Your task to perform on an android device: open app "Spotify" (install if not already installed) Image 0: 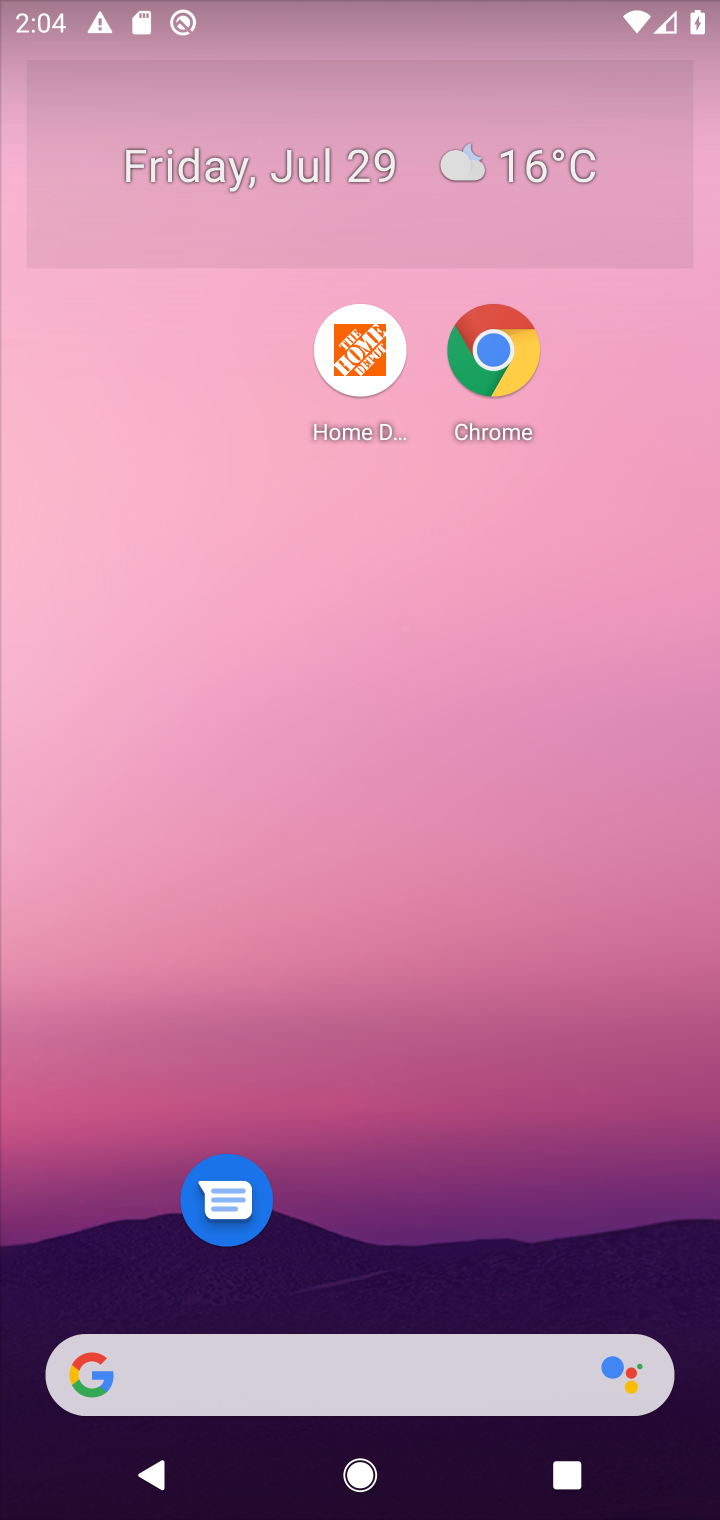
Step 0: drag from (543, 1209) to (521, 189)
Your task to perform on an android device: open app "Spotify" (install if not already installed) Image 1: 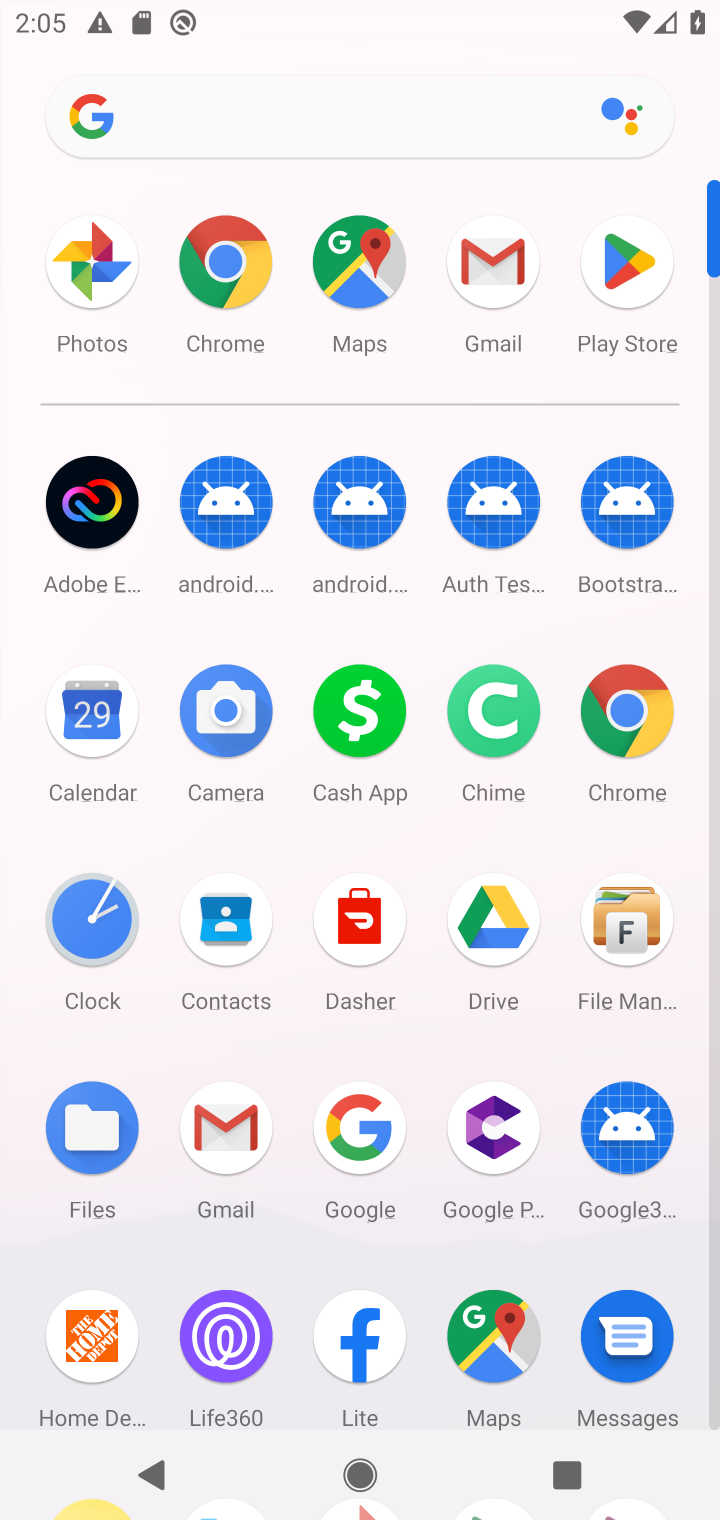
Step 1: click (604, 270)
Your task to perform on an android device: open app "Spotify" (install if not already installed) Image 2: 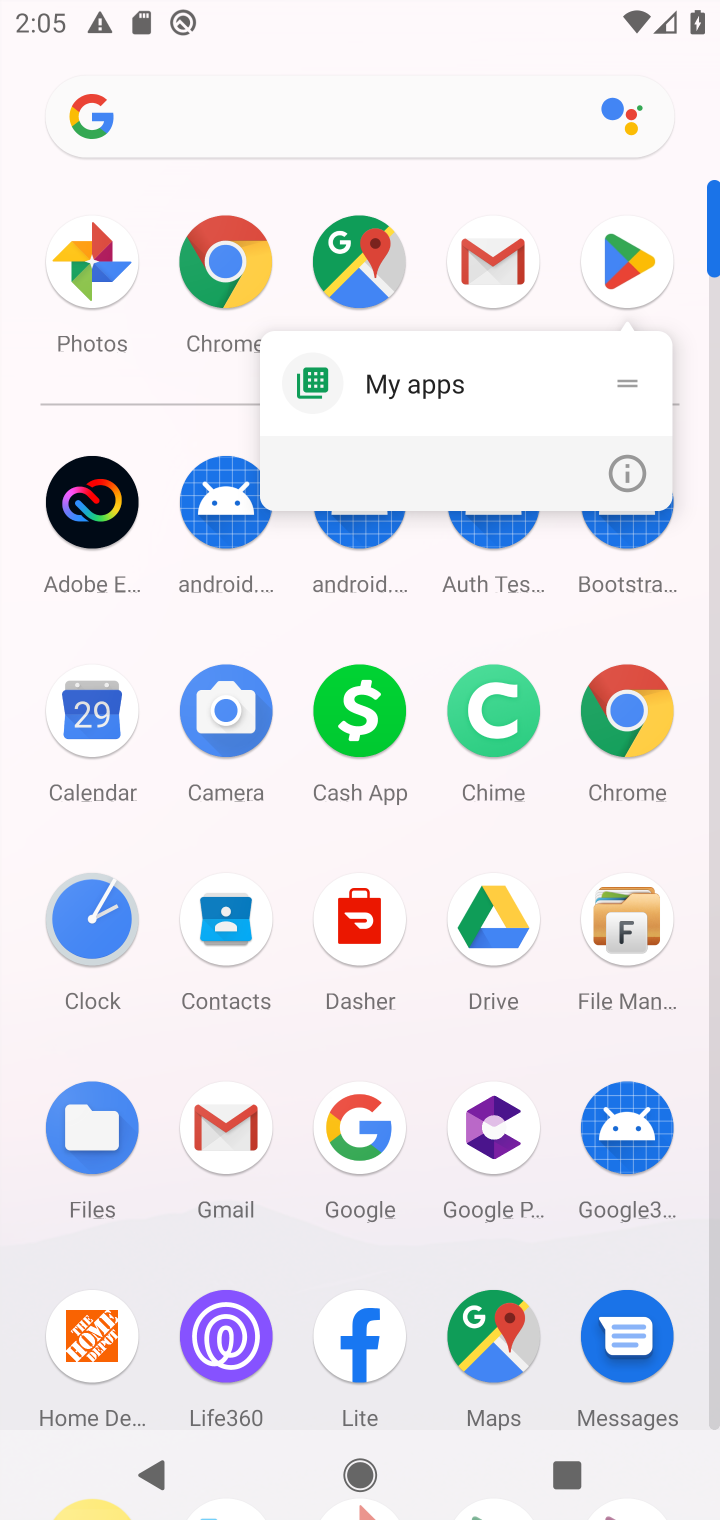
Step 2: click (429, 1249)
Your task to perform on an android device: open app "Spotify" (install if not already installed) Image 3: 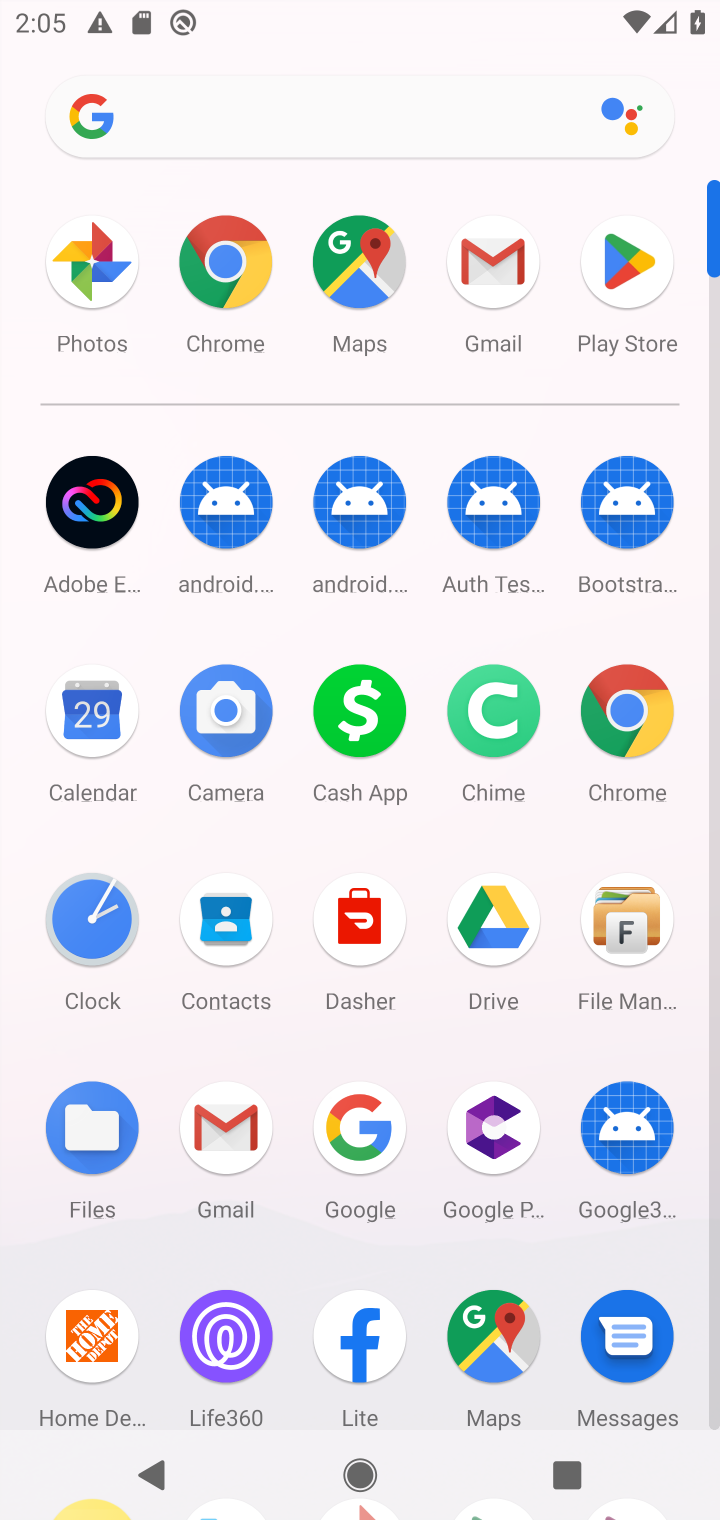
Step 3: drag from (429, 1249) to (473, 585)
Your task to perform on an android device: open app "Spotify" (install if not already installed) Image 4: 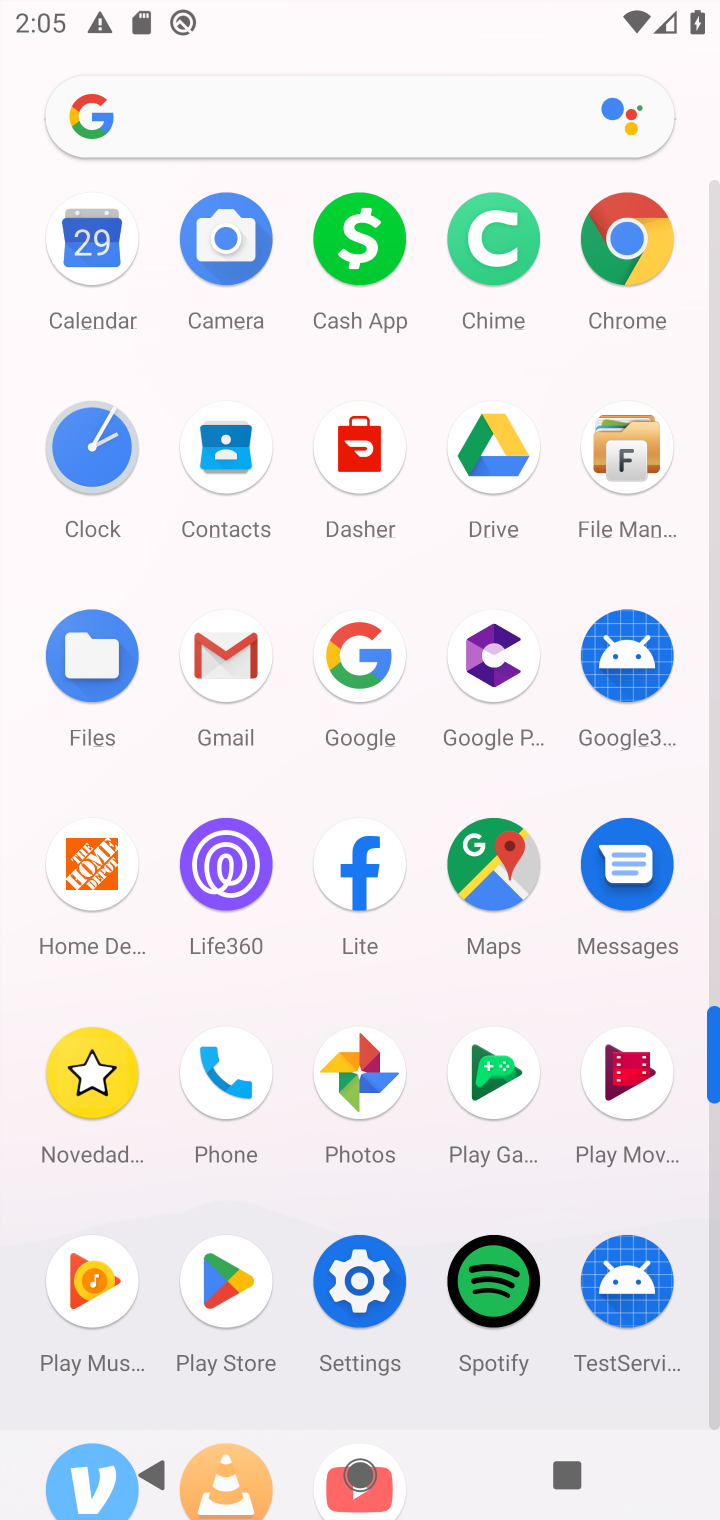
Step 4: click (217, 1293)
Your task to perform on an android device: open app "Spotify" (install if not already installed) Image 5: 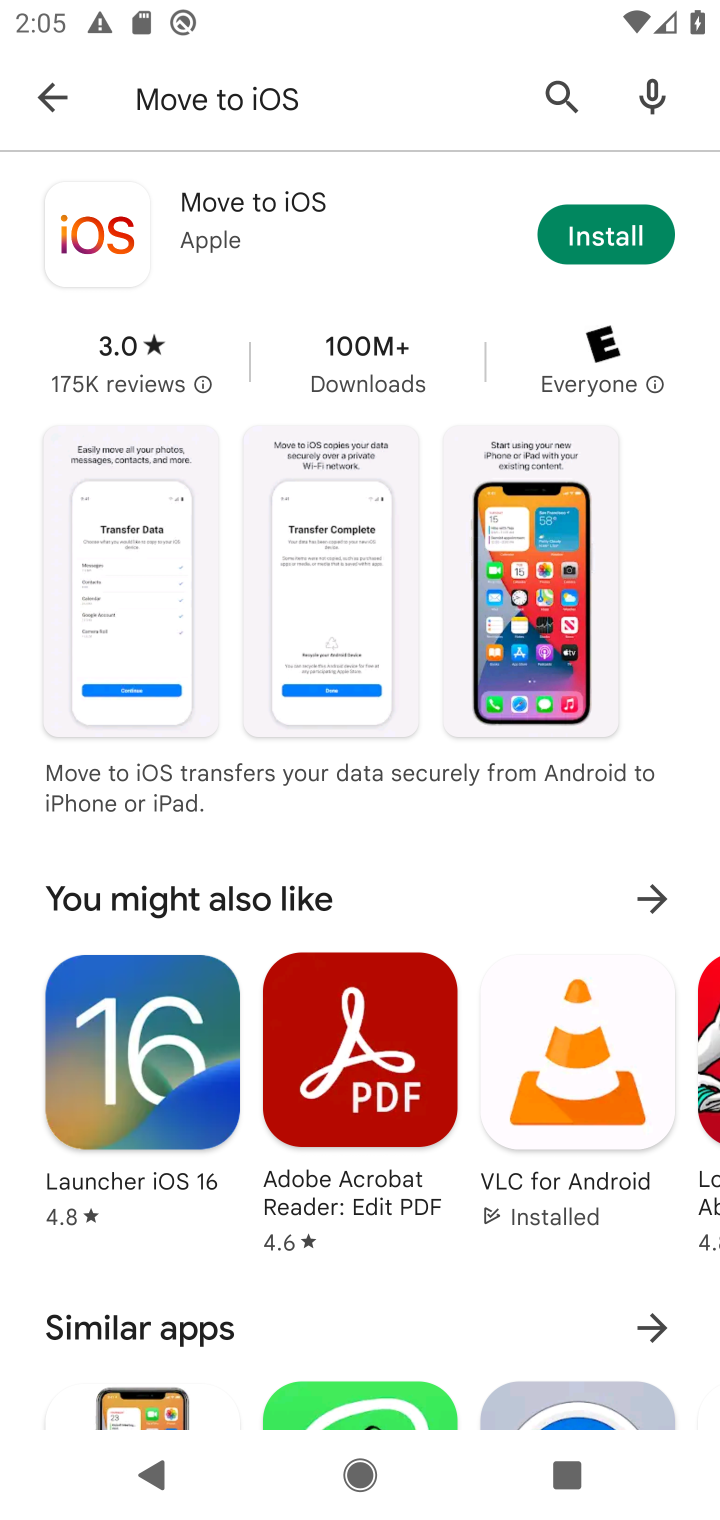
Step 5: click (313, 94)
Your task to perform on an android device: open app "Spotify" (install if not already installed) Image 6: 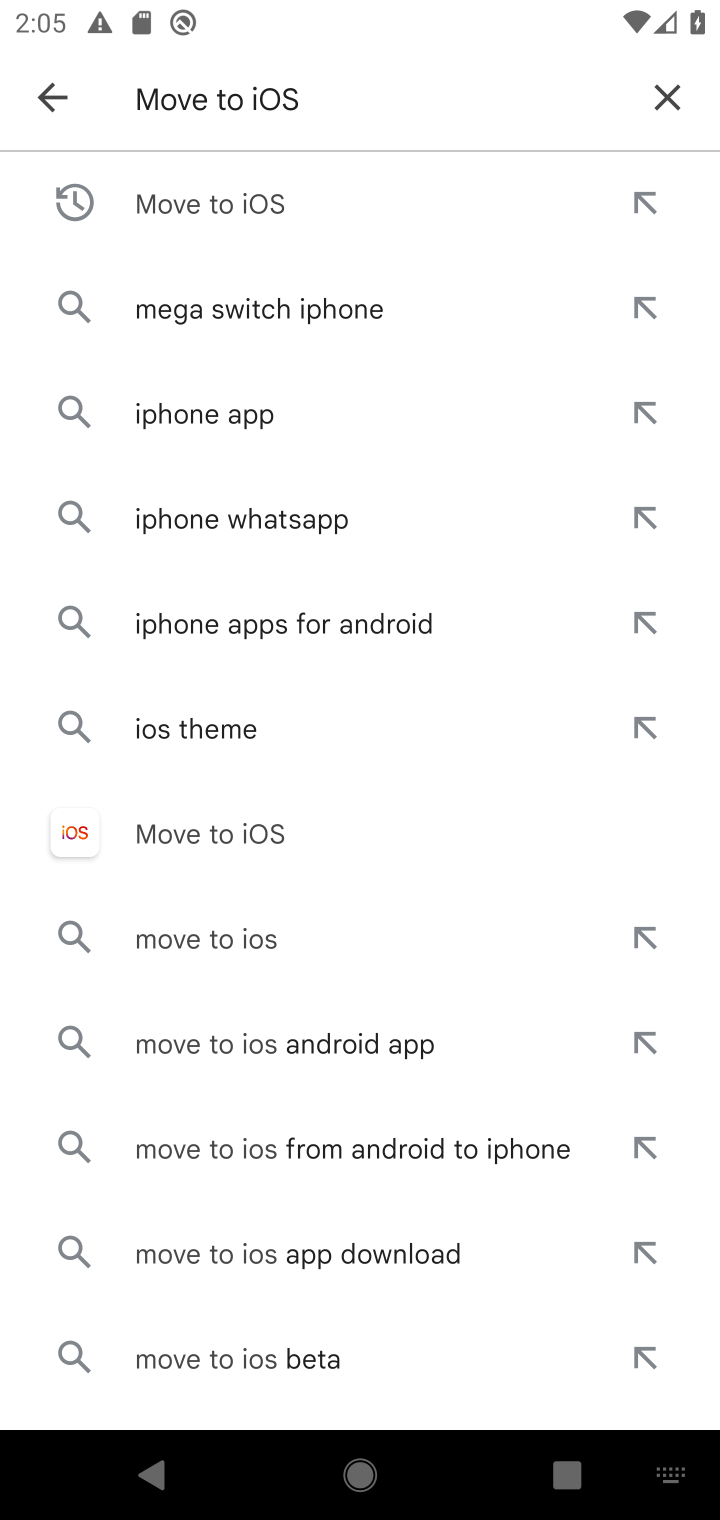
Step 6: click (688, 89)
Your task to perform on an android device: open app "Spotify" (install if not already installed) Image 7: 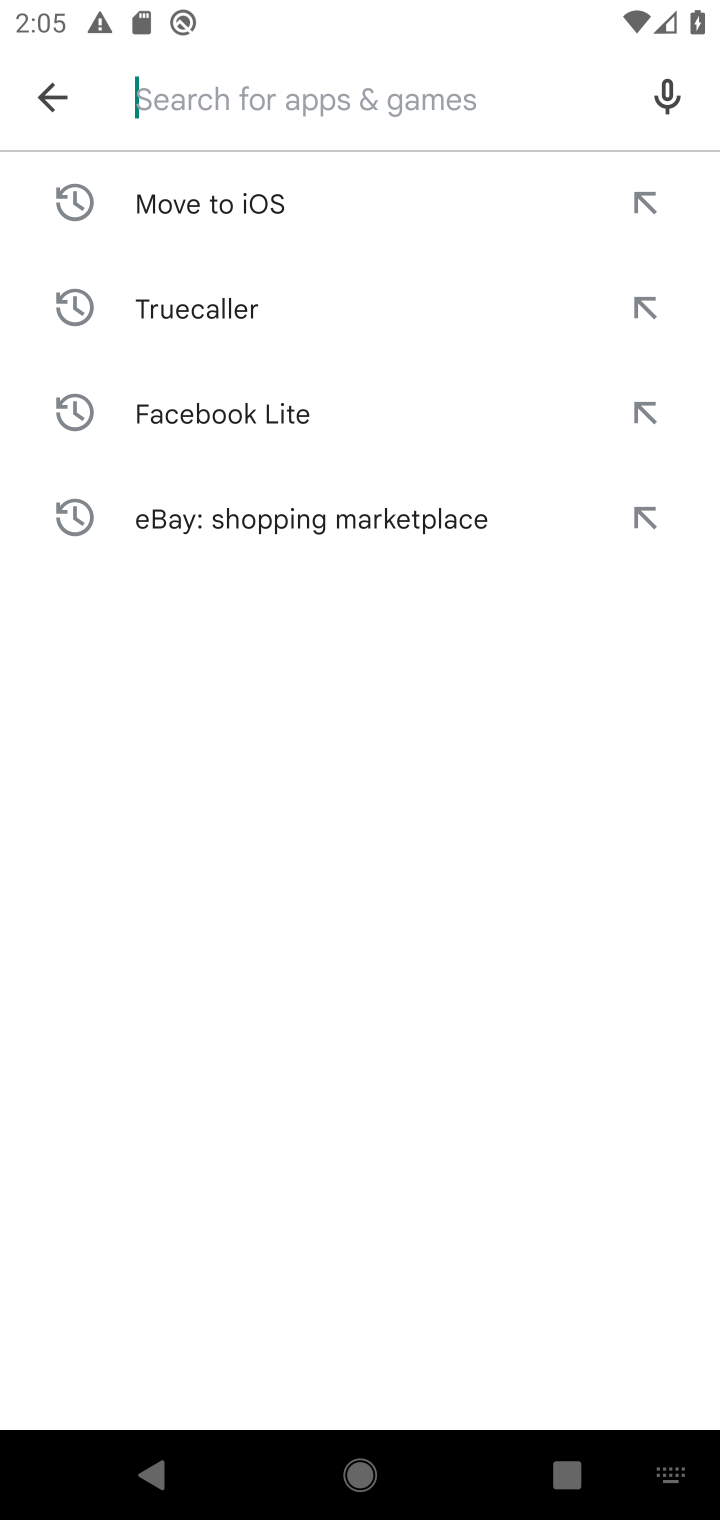
Step 7: type "Spotify"
Your task to perform on an android device: open app "Spotify" (install if not already installed) Image 8: 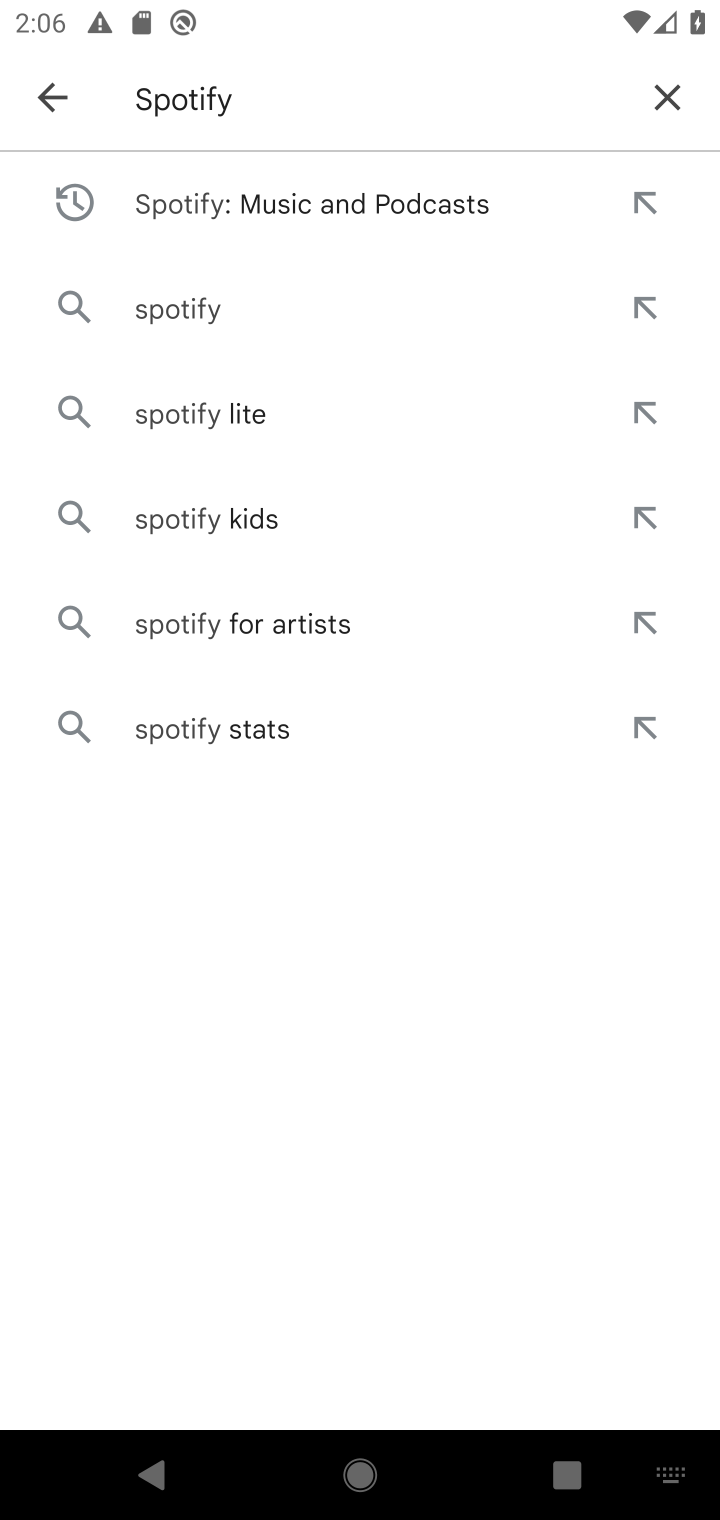
Step 8: press enter
Your task to perform on an android device: open app "Spotify" (install if not already installed) Image 9: 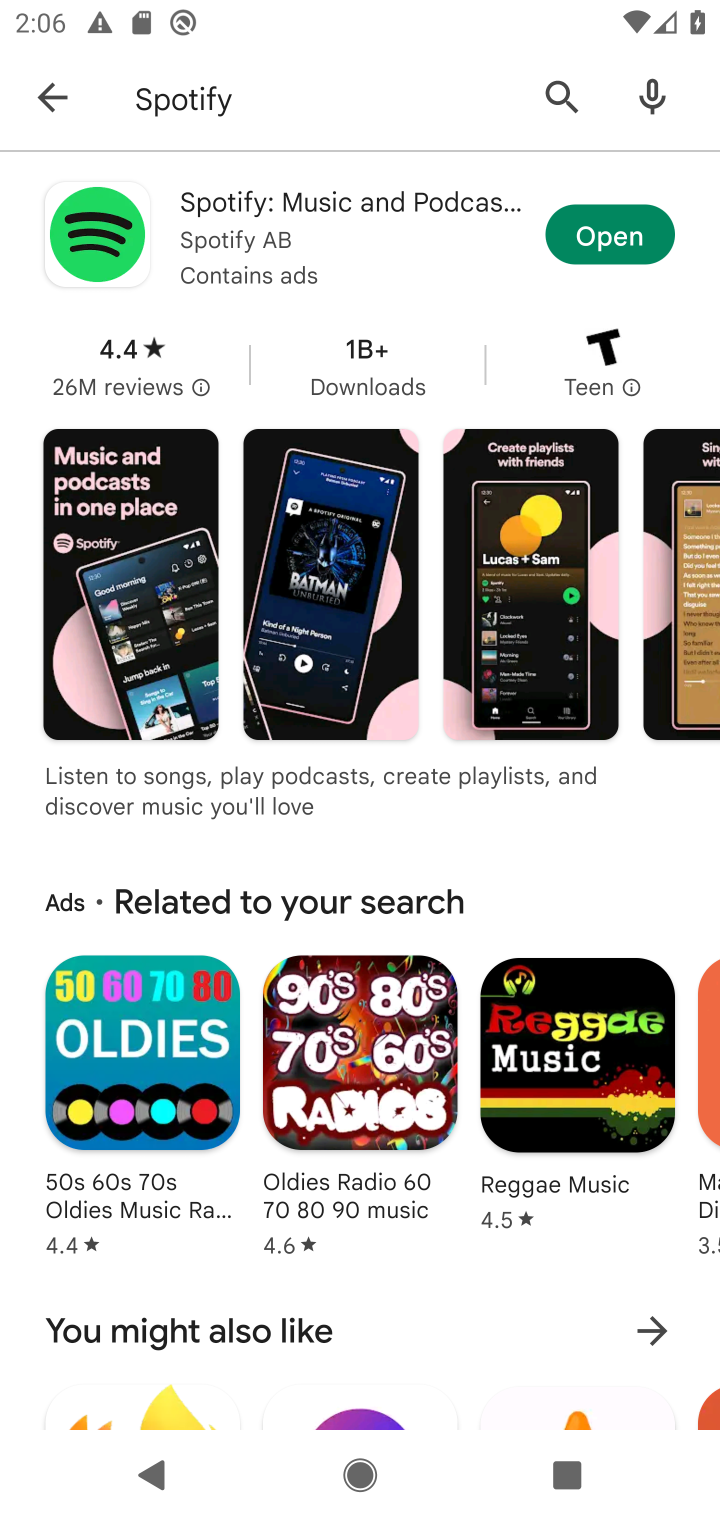
Step 9: click (389, 246)
Your task to perform on an android device: open app "Spotify" (install if not already installed) Image 10: 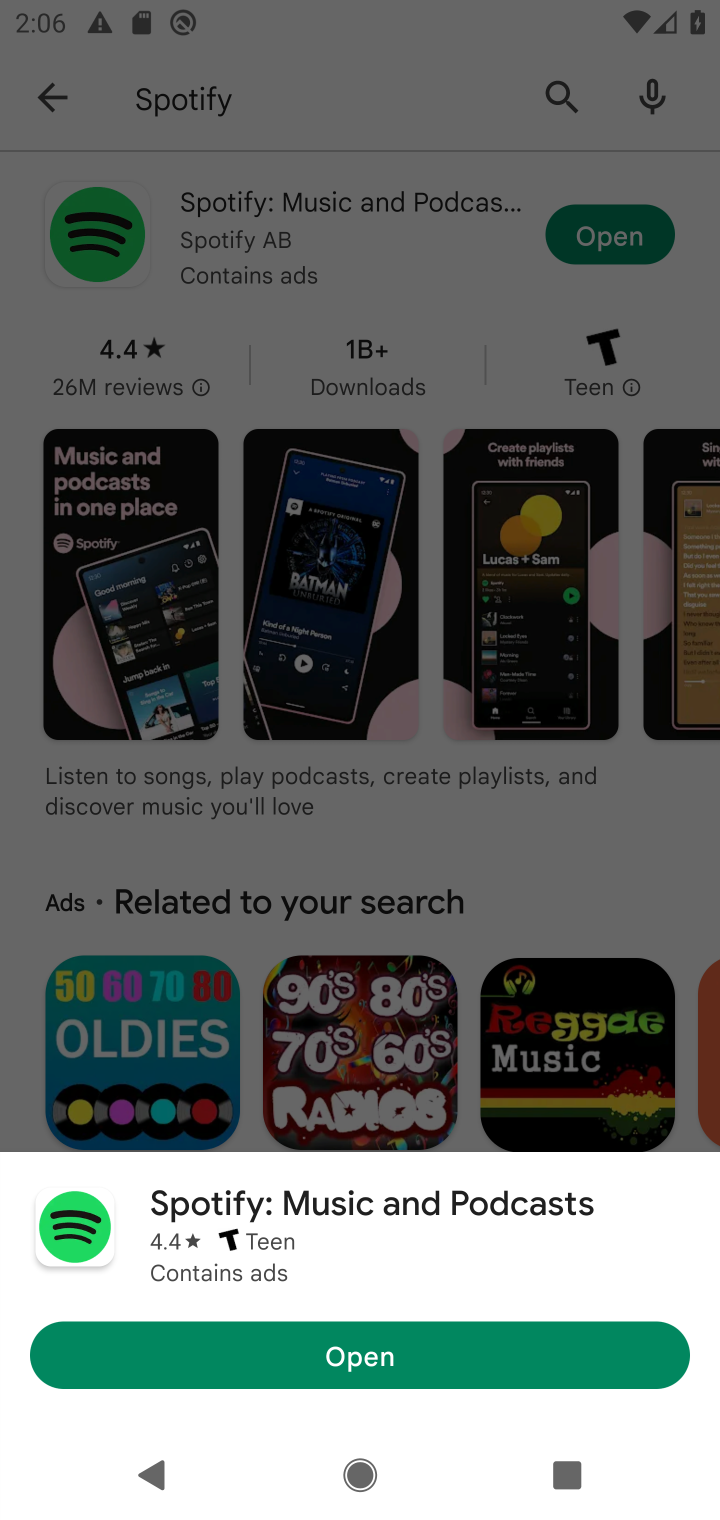
Step 10: click (485, 1350)
Your task to perform on an android device: open app "Spotify" (install if not already installed) Image 11: 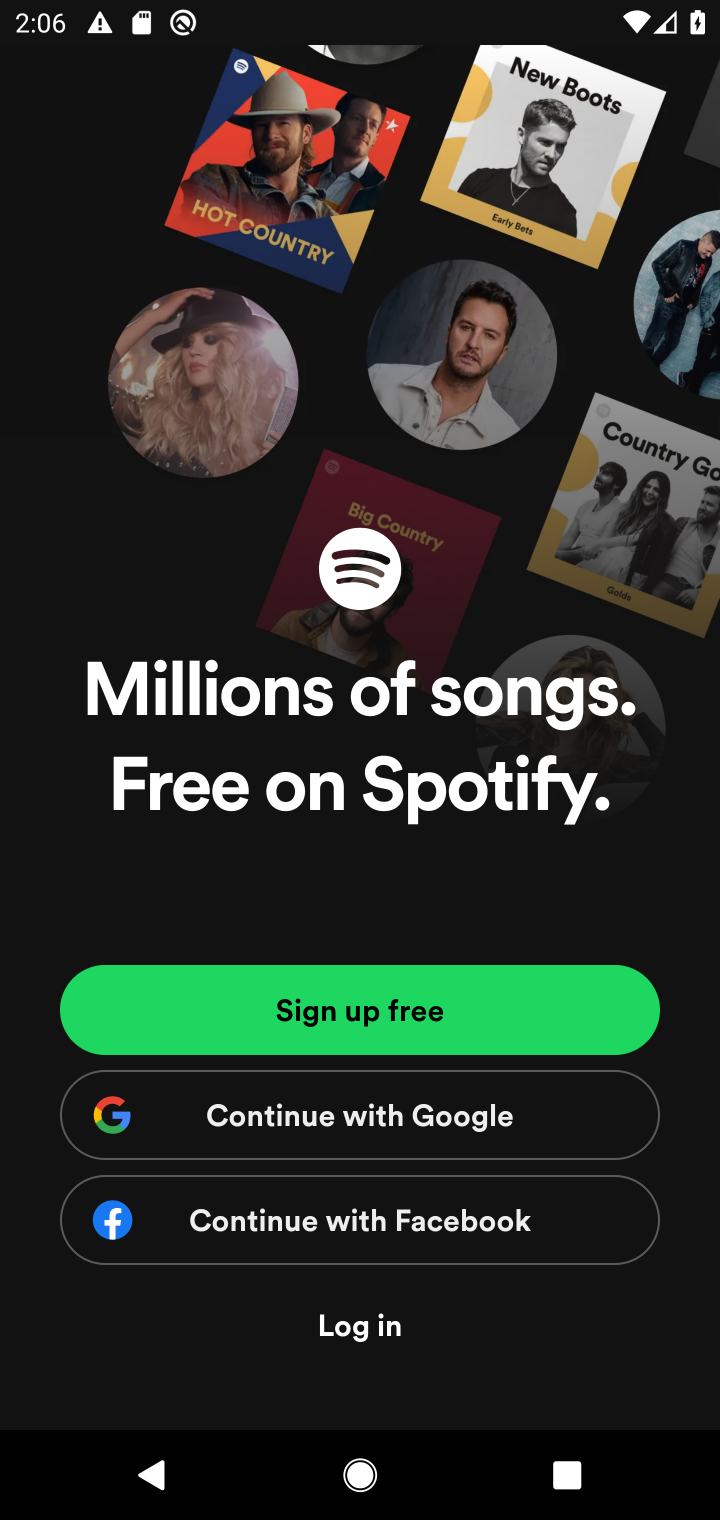
Step 11: task complete